Your task to perform on an android device: search for starred emails in the gmail app Image 0: 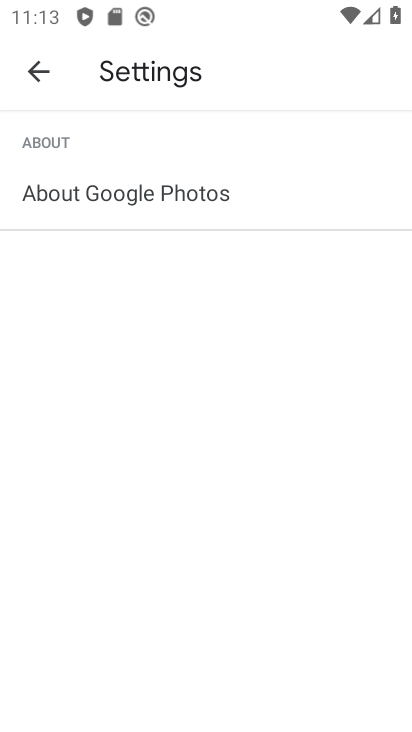
Step 0: press home button
Your task to perform on an android device: search for starred emails in the gmail app Image 1: 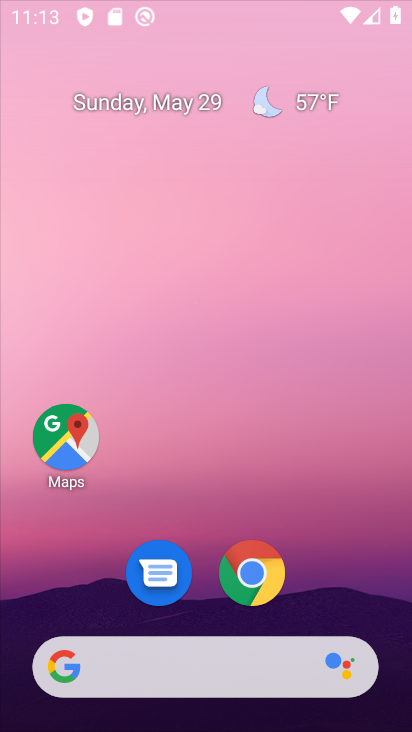
Step 1: drag from (143, 706) to (206, 9)
Your task to perform on an android device: search for starred emails in the gmail app Image 2: 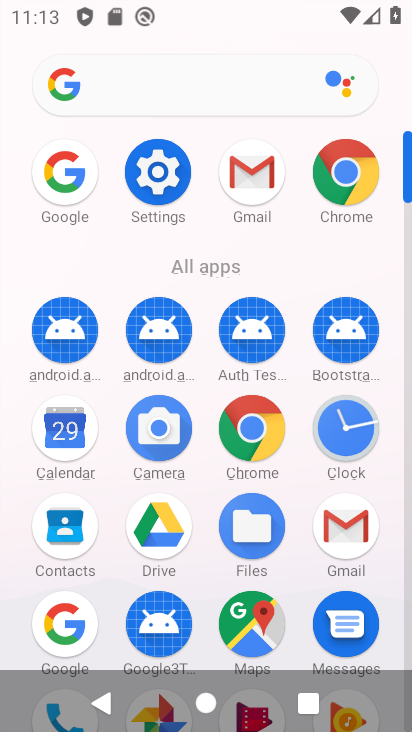
Step 2: click (384, 536)
Your task to perform on an android device: search for starred emails in the gmail app Image 3: 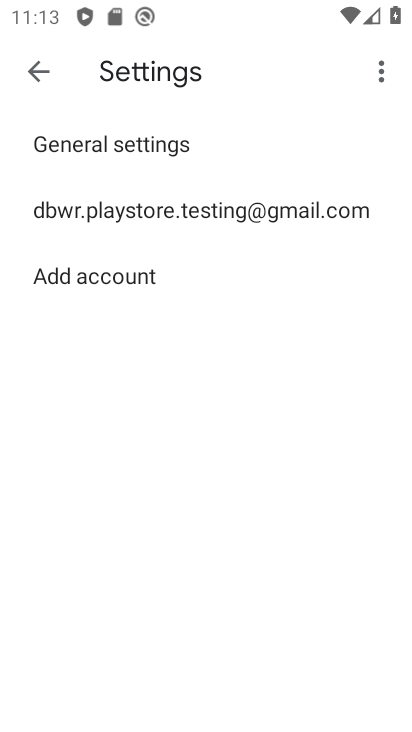
Step 3: press back button
Your task to perform on an android device: search for starred emails in the gmail app Image 4: 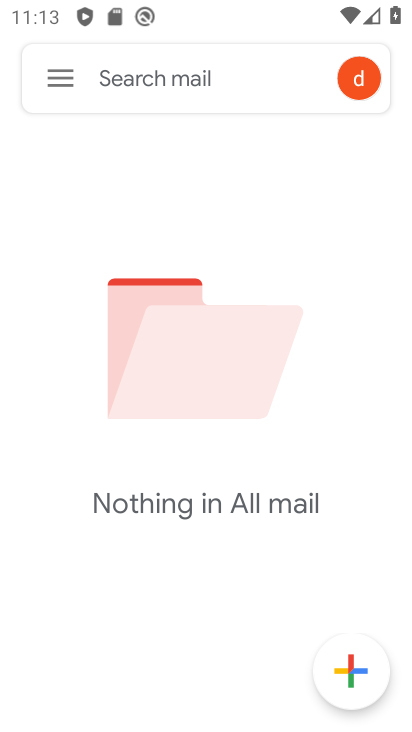
Step 4: click (67, 84)
Your task to perform on an android device: search for starred emails in the gmail app Image 5: 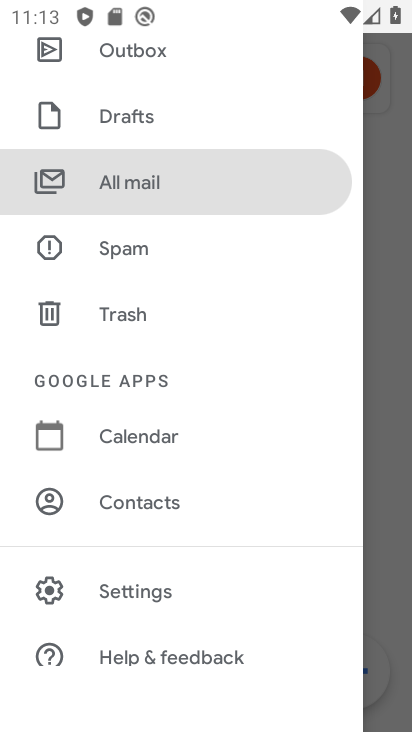
Step 5: drag from (148, 243) to (108, 709)
Your task to perform on an android device: search for starred emails in the gmail app Image 6: 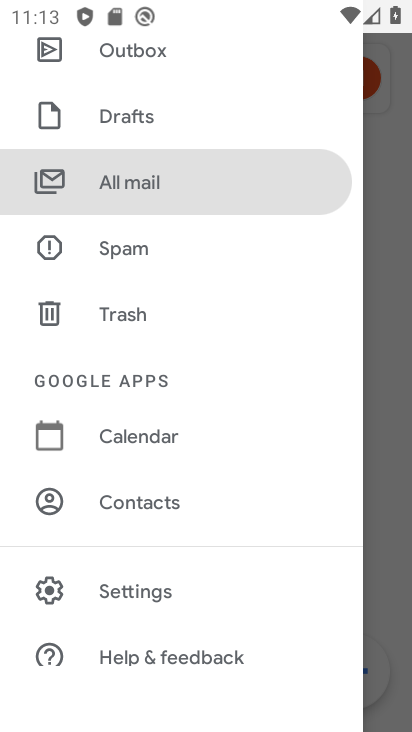
Step 6: drag from (180, 248) to (292, 723)
Your task to perform on an android device: search for starred emails in the gmail app Image 7: 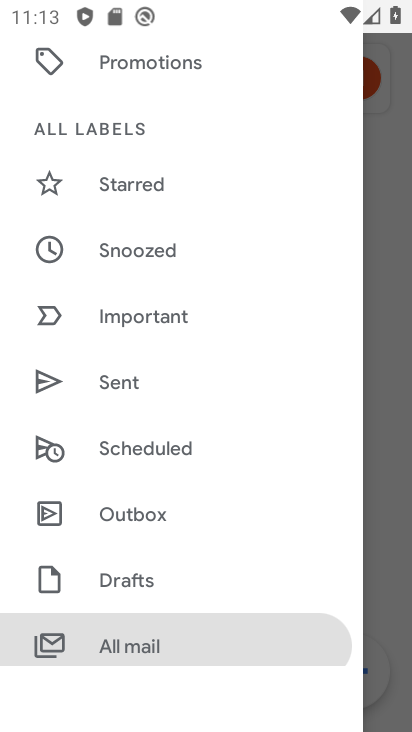
Step 7: click (148, 185)
Your task to perform on an android device: search for starred emails in the gmail app Image 8: 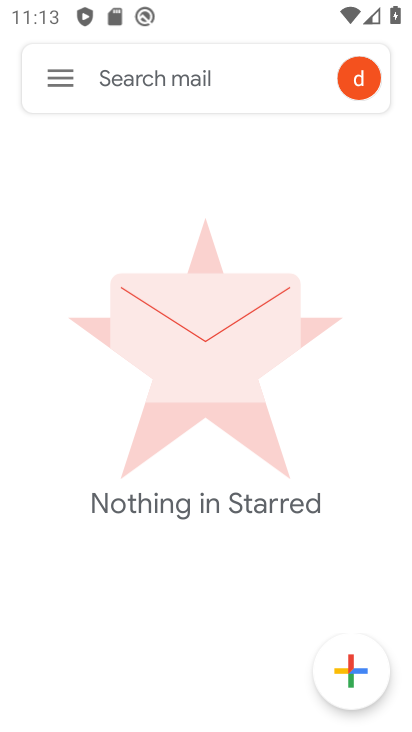
Step 8: task complete